Your task to perform on an android device: refresh tabs in the chrome app Image 0: 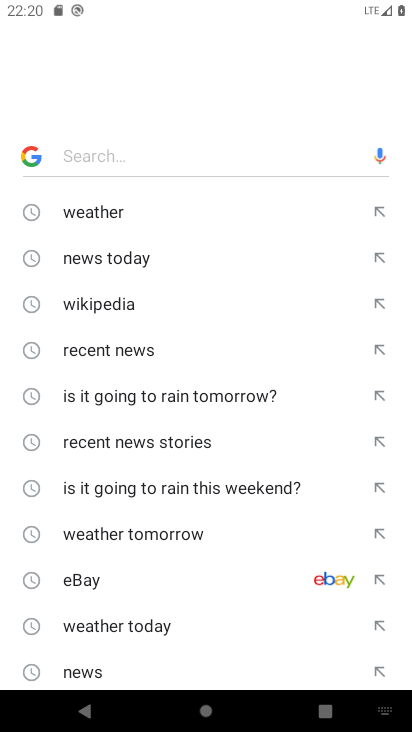
Step 0: press home button
Your task to perform on an android device: refresh tabs in the chrome app Image 1: 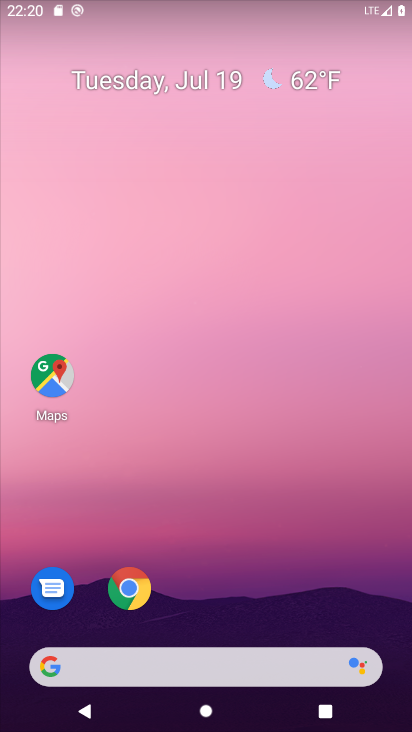
Step 1: click (130, 591)
Your task to perform on an android device: refresh tabs in the chrome app Image 2: 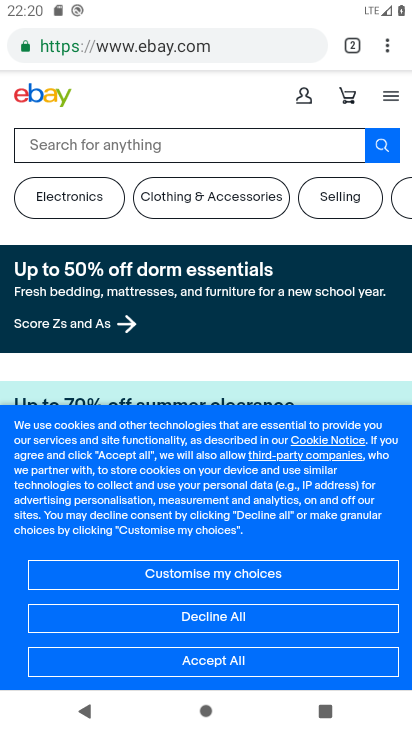
Step 2: click (385, 44)
Your task to perform on an android device: refresh tabs in the chrome app Image 3: 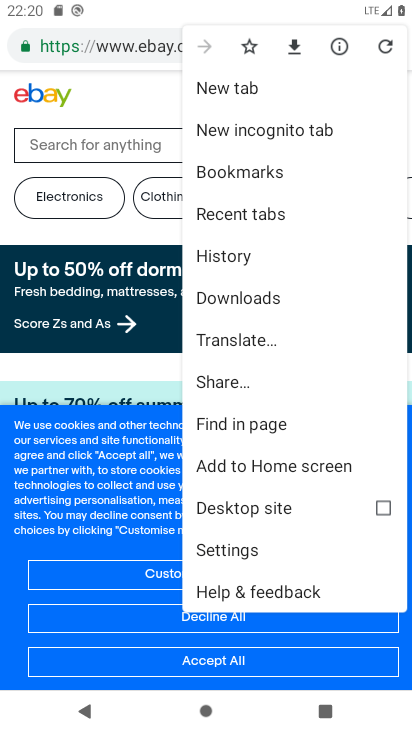
Step 3: click (389, 44)
Your task to perform on an android device: refresh tabs in the chrome app Image 4: 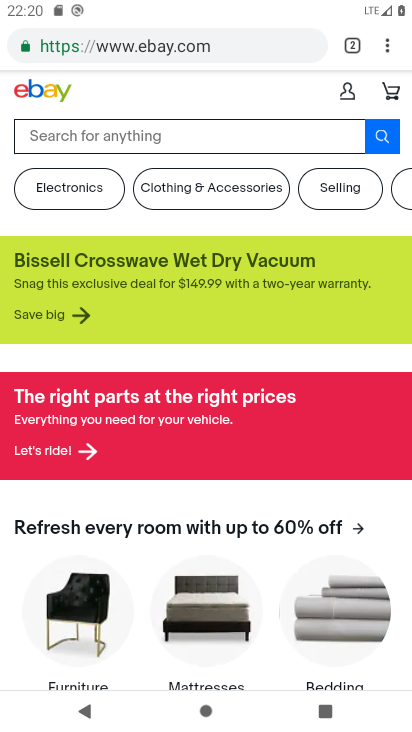
Step 4: task complete